Your task to perform on an android device: read, delete, or share a saved page in the chrome app Image 0: 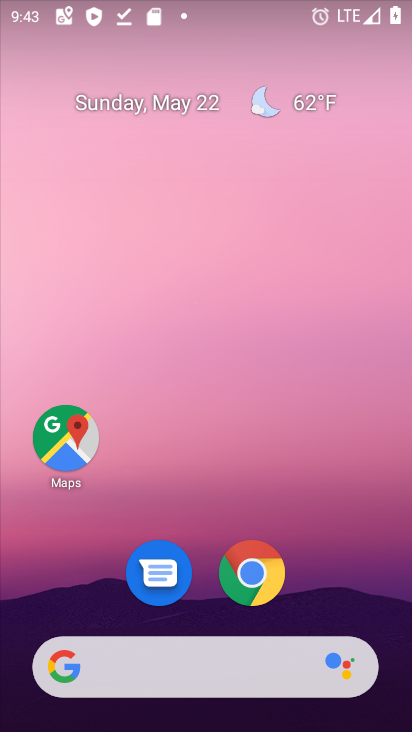
Step 0: drag from (206, 646) to (203, 106)
Your task to perform on an android device: read, delete, or share a saved page in the chrome app Image 1: 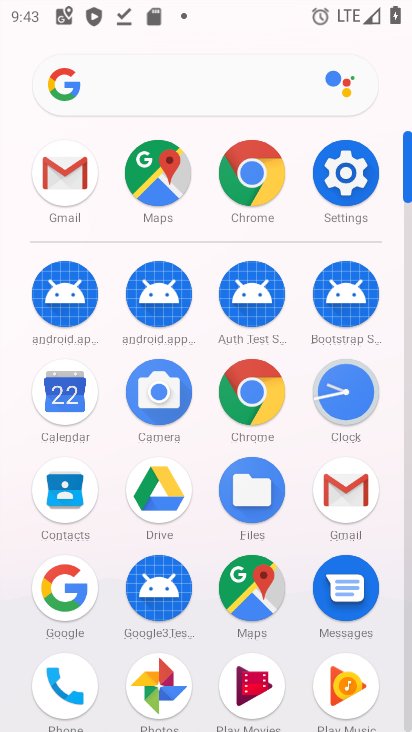
Step 1: click (248, 397)
Your task to perform on an android device: read, delete, or share a saved page in the chrome app Image 2: 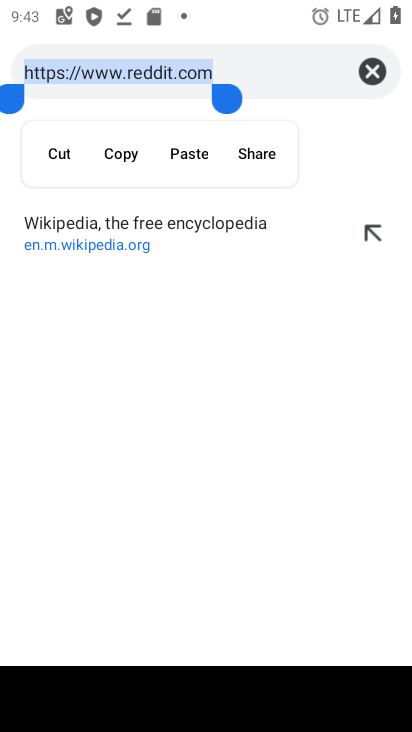
Step 2: task complete